Your task to perform on an android device: Go to Wikipedia Image 0: 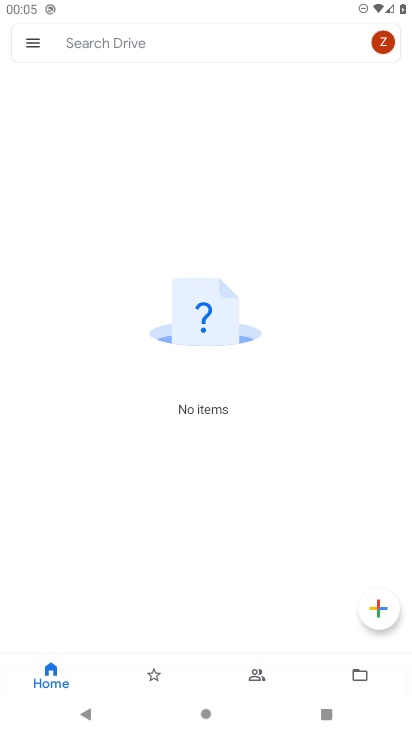
Step 0: press home button
Your task to perform on an android device: Go to Wikipedia Image 1: 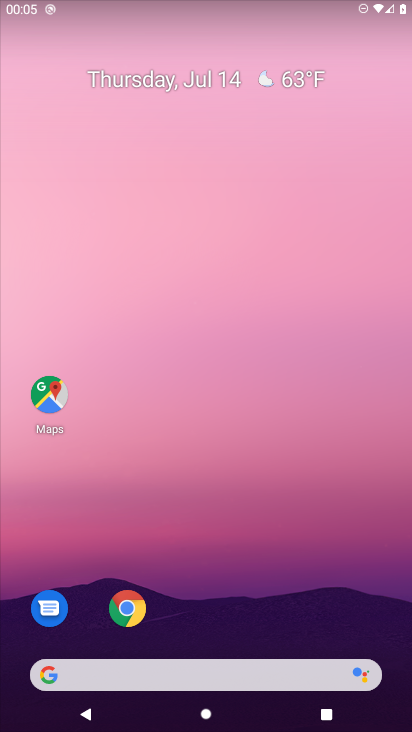
Step 1: click (48, 672)
Your task to perform on an android device: Go to Wikipedia Image 2: 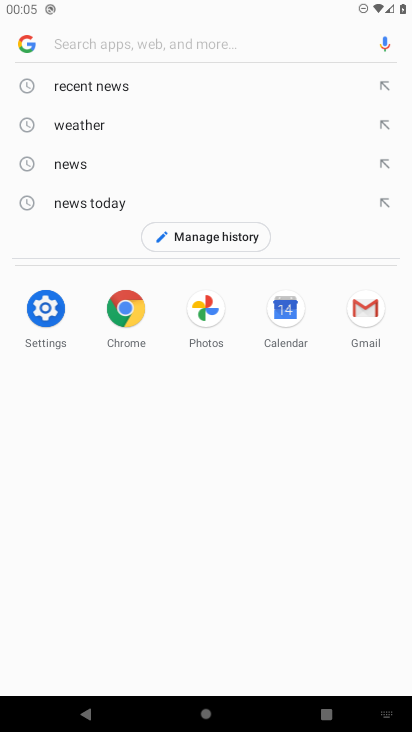
Step 2: type "Wikipedia"
Your task to perform on an android device: Go to Wikipedia Image 3: 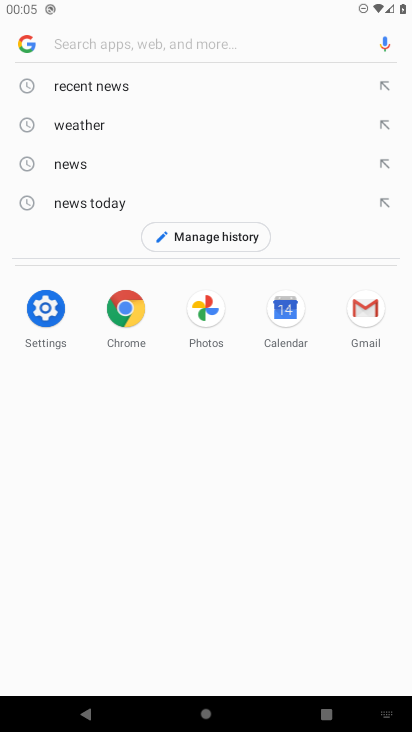
Step 3: click (135, 44)
Your task to perform on an android device: Go to Wikipedia Image 4: 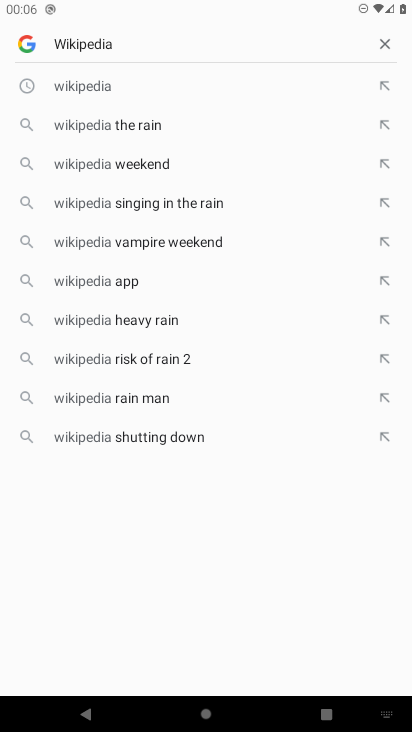
Step 4: click (81, 86)
Your task to perform on an android device: Go to Wikipedia Image 5: 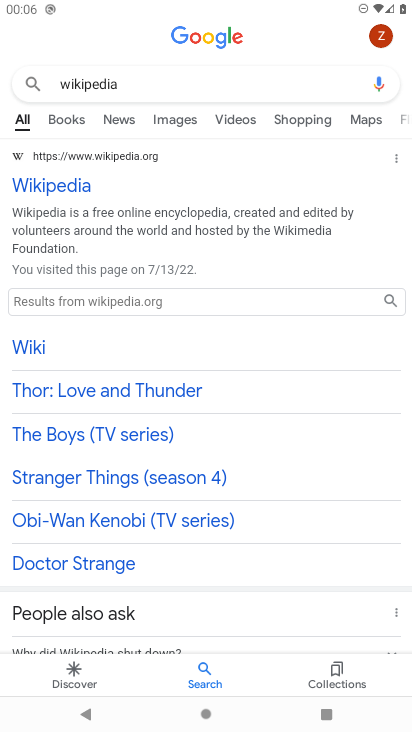
Step 5: click (48, 186)
Your task to perform on an android device: Go to Wikipedia Image 6: 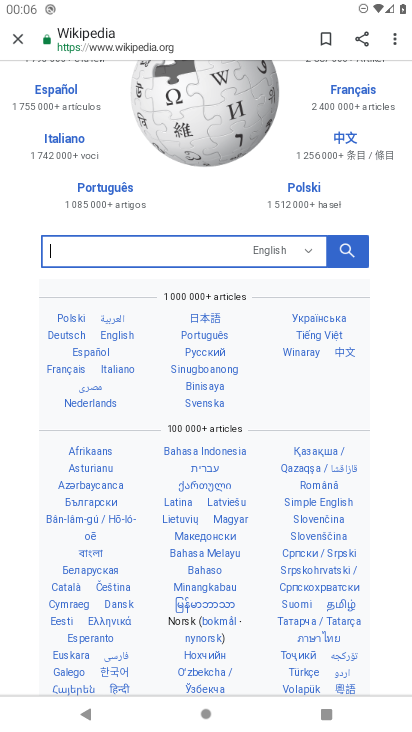
Step 6: task complete